Your task to perform on an android device: What is the recent news? Image 0: 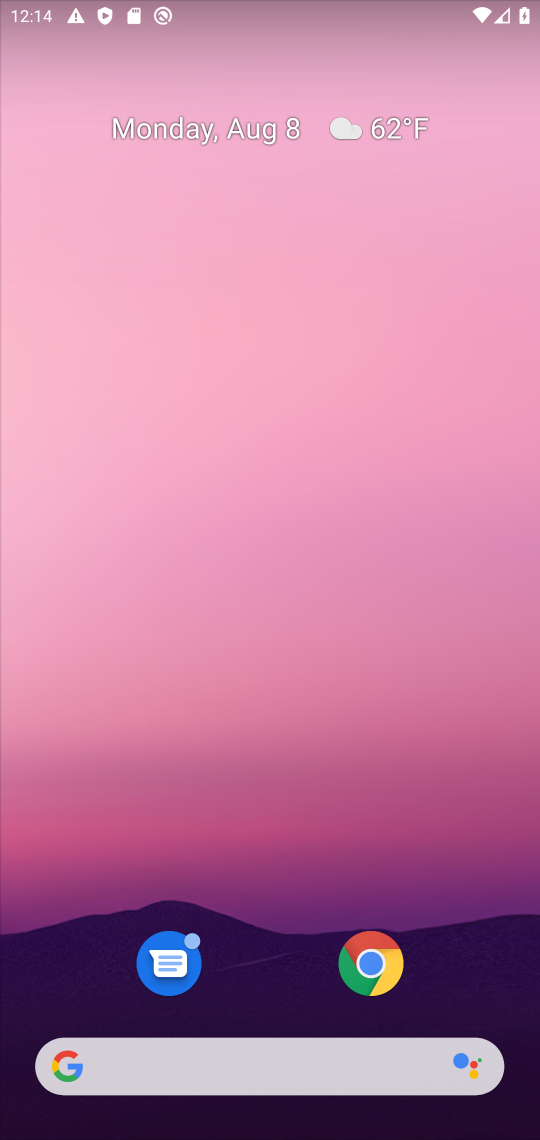
Step 0: drag from (457, 910) to (248, 12)
Your task to perform on an android device: What is the recent news? Image 1: 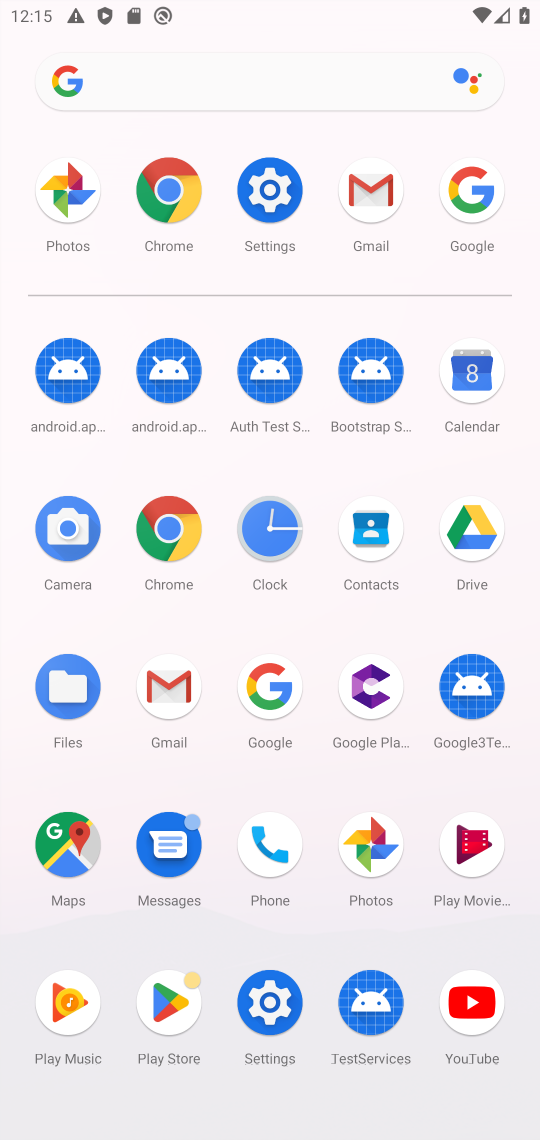
Step 1: click (259, 690)
Your task to perform on an android device: What is the recent news? Image 2: 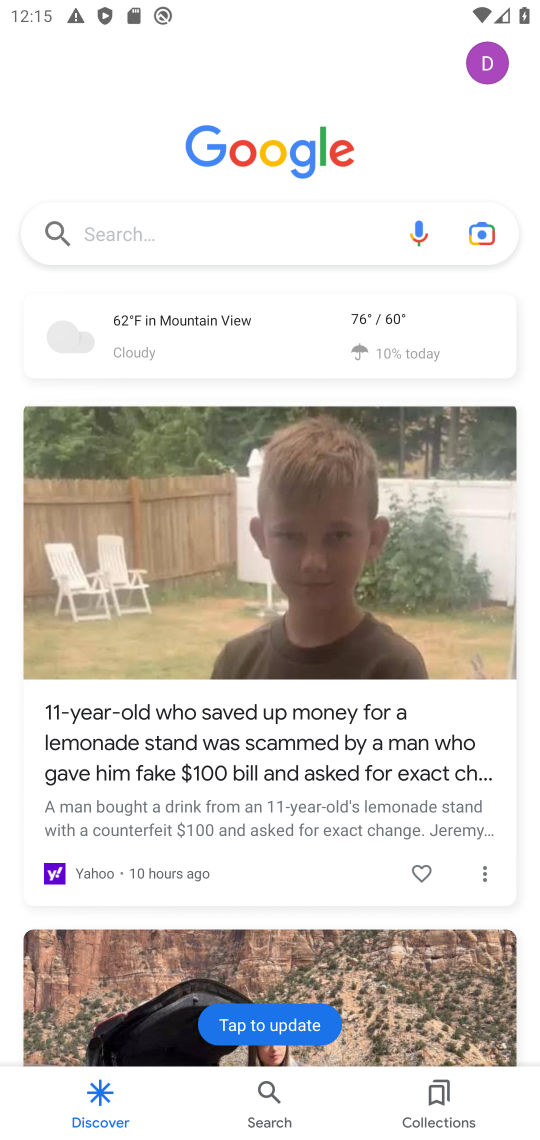
Step 2: click (125, 238)
Your task to perform on an android device: What is the recent news? Image 3: 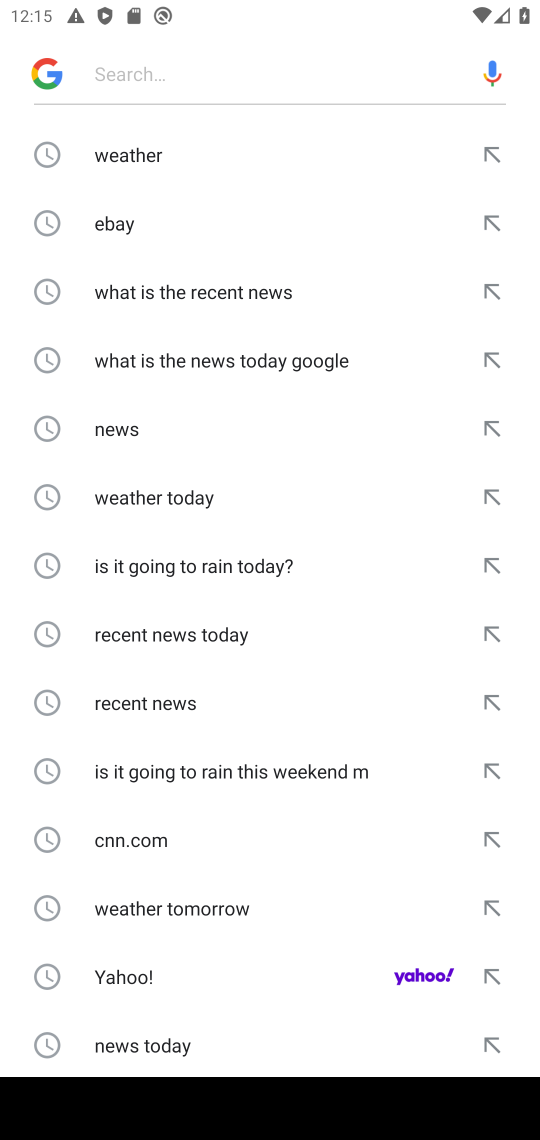
Step 3: click (220, 287)
Your task to perform on an android device: What is the recent news? Image 4: 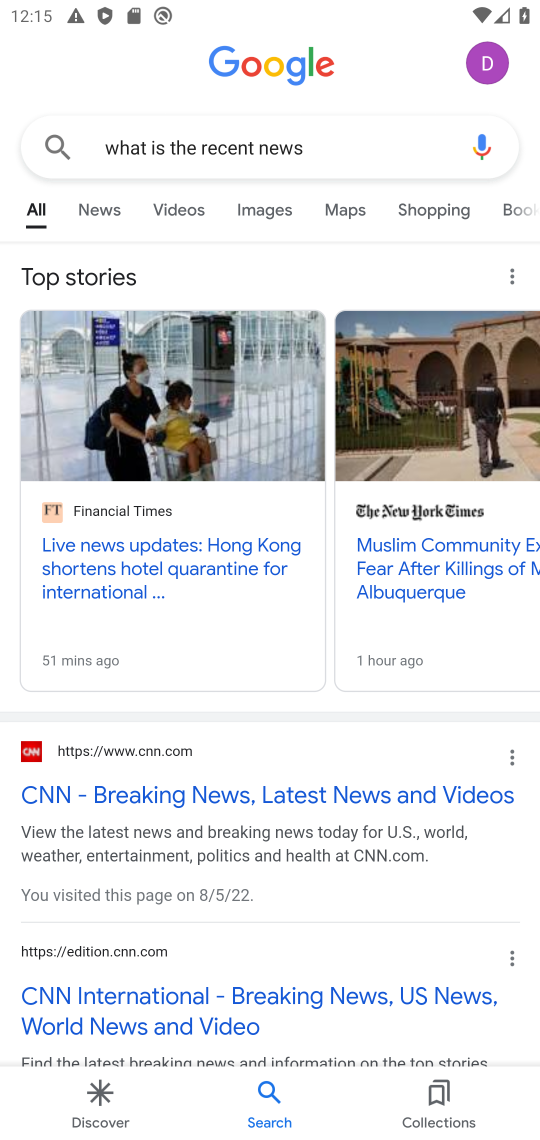
Step 4: task complete